Your task to perform on an android device: Show the shopping cart on walmart.com. Search for macbook air on walmart.com, select the first entry, add it to the cart, then select checkout. Image 0: 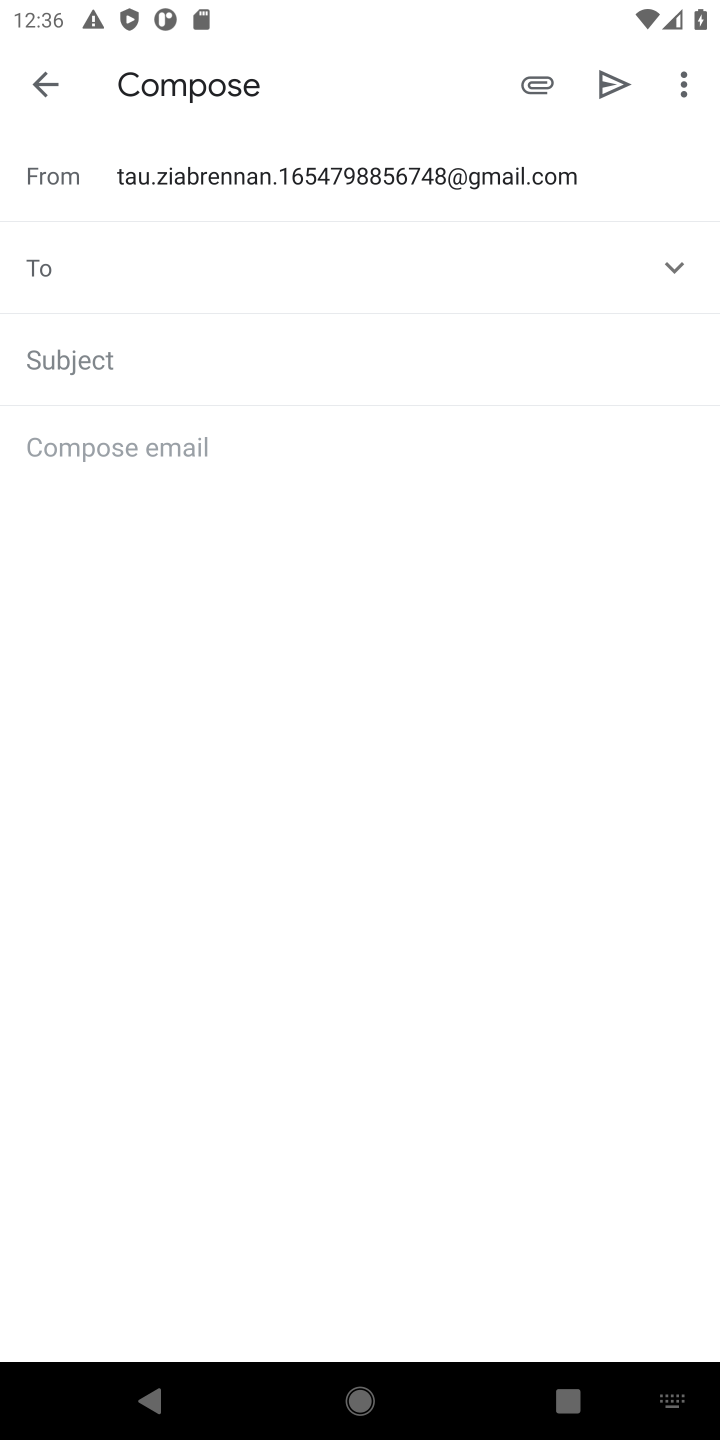
Step 0: press home button
Your task to perform on an android device: Show the shopping cart on walmart.com. Search for macbook air on walmart.com, select the first entry, add it to the cart, then select checkout. Image 1: 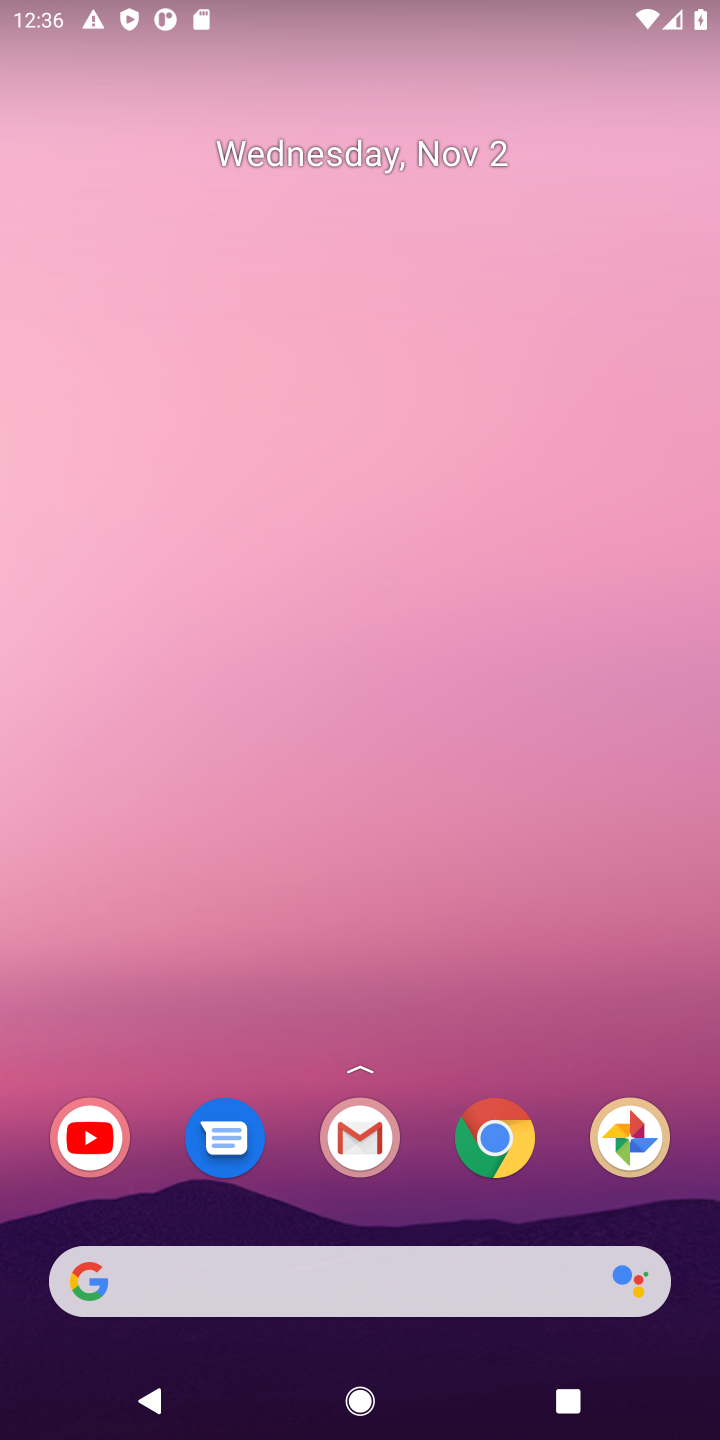
Step 1: click (147, 1271)
Your task to perform on an android device: Show the shopping cart on walmart.com. Search for macbook air on walmart.com, select the first entry, add it to the cart, then select checkout. Image 2: 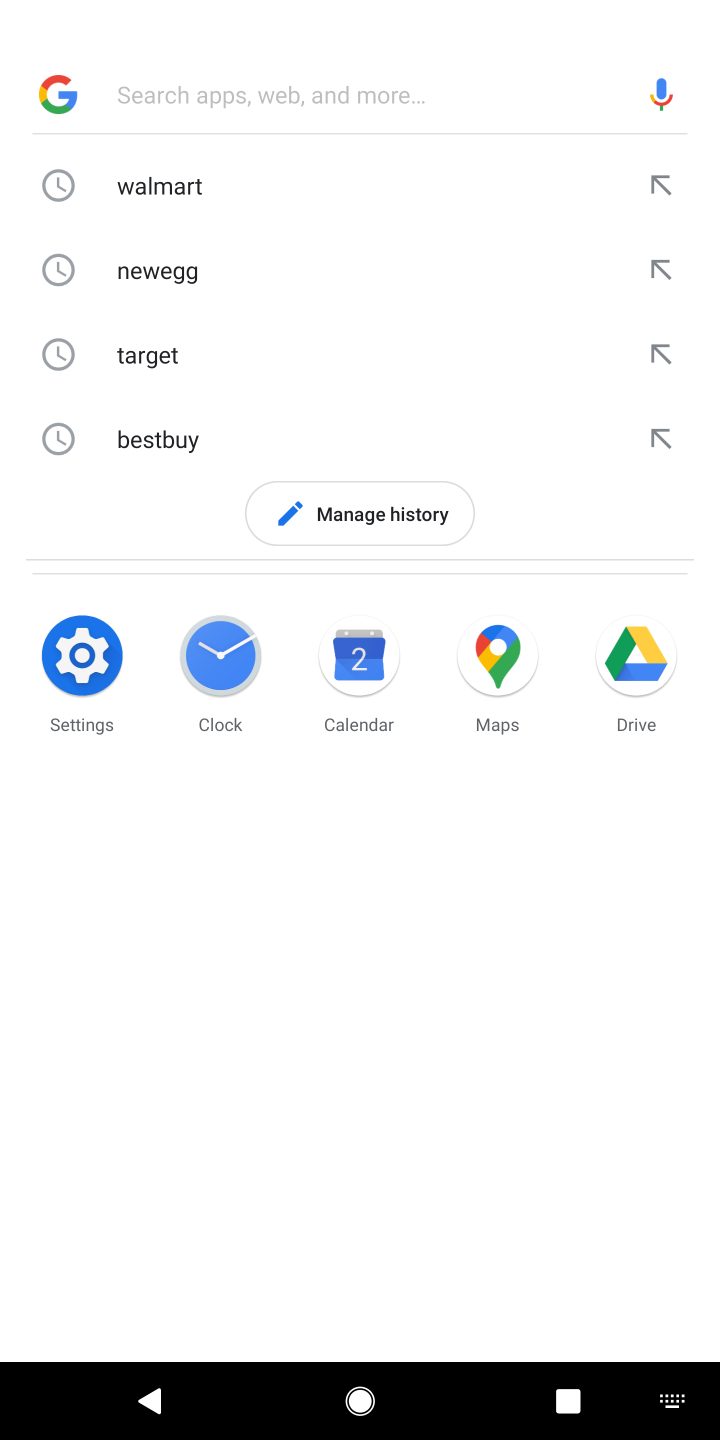
Step 2: click (191, 191)
Your task to perform on an android device: Show the shopping cart on walmart.com. Search for macbook air on walmart.com, select the first entry, add it to the cart, then select checkout. Image 3: 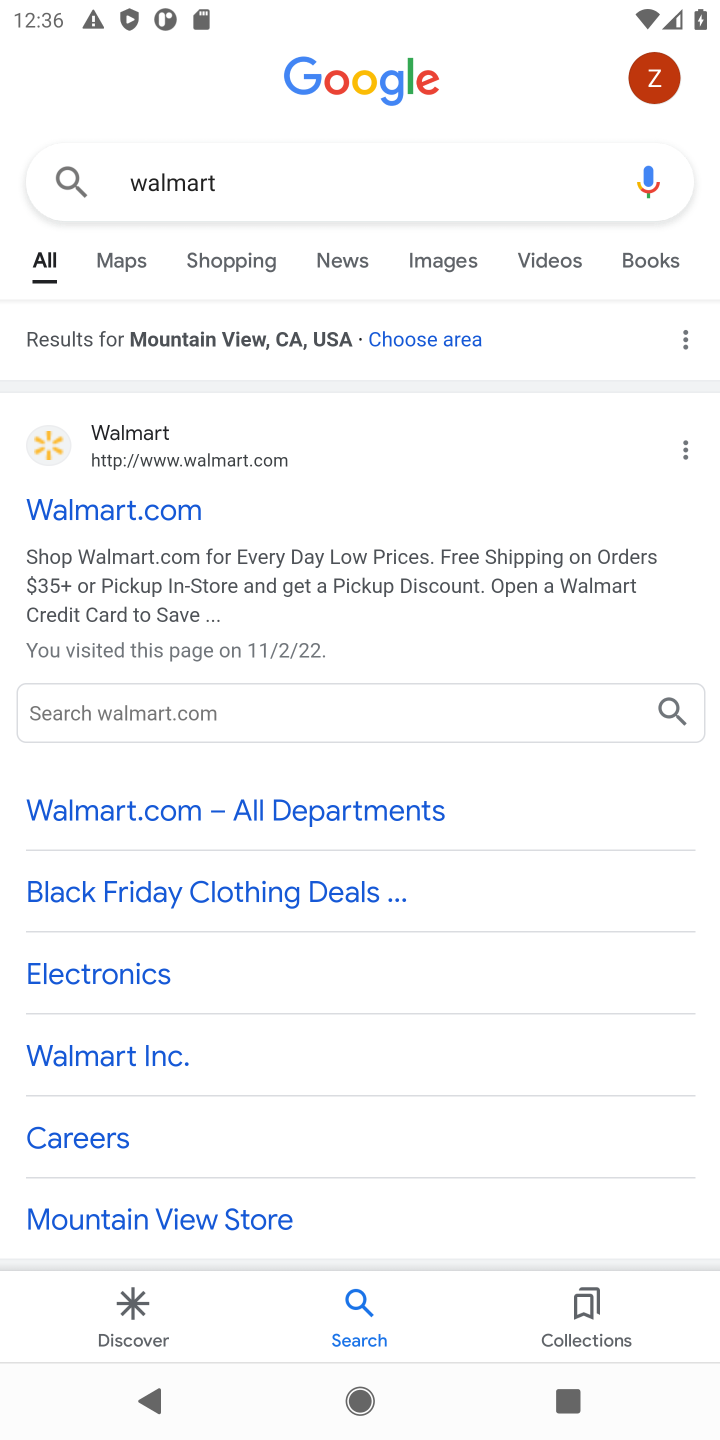
Step 3: click (131, 516)
Your task to perform on an android device: Show the shopping cart on walmart.com. Search for macbook air on walmart.com, select the first entry, add it to the cart, then select checkout. Image 4: 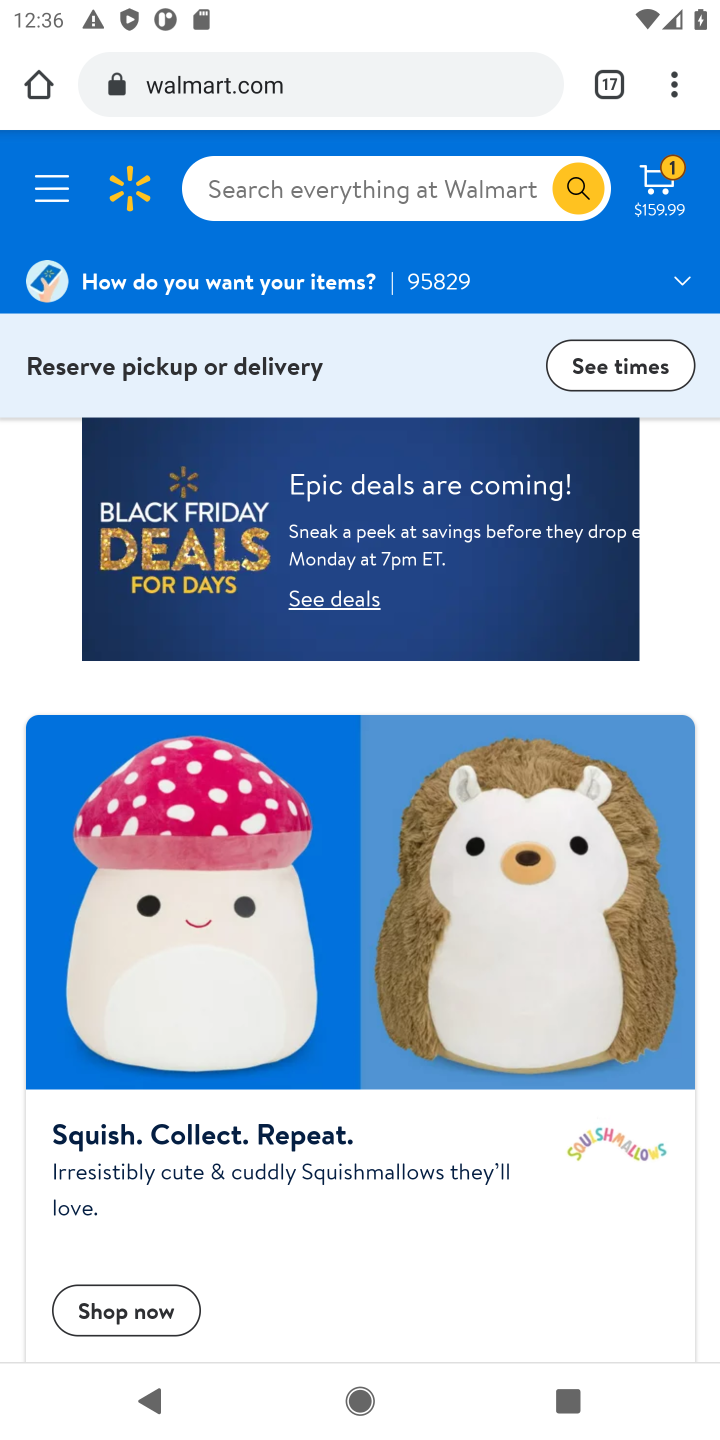
Step 4: click (670, 171)
Your task to perform on an android device: Show the shopping cart on walmart.com. Search for macbook air on walmart.com, select the first entry, add it to the cart, then select checkout. Image 5: 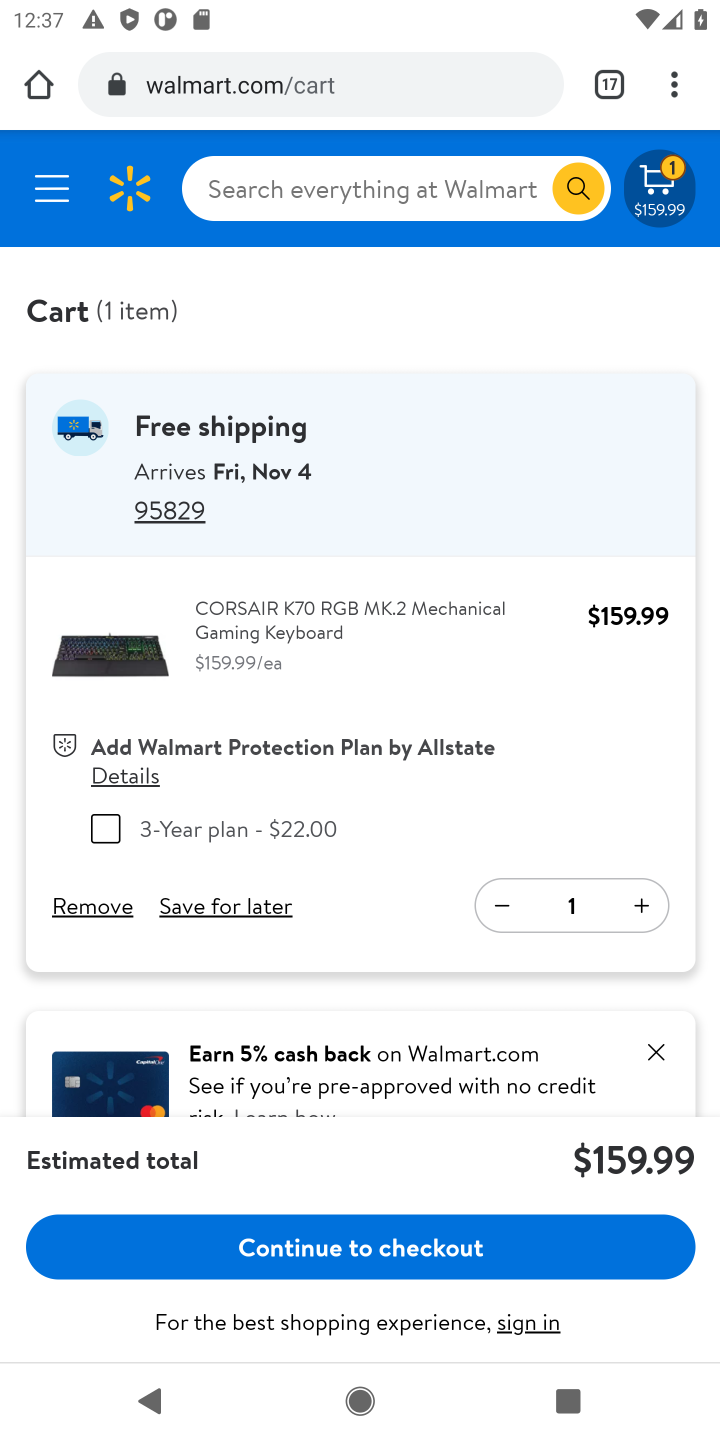
Step 5: click (250, 189)
Your task to perform on an android device: Show the shopping cart on walmart.com. Search for macbook air on walmart.com, select the first entry, add it to the cart, then select checkout. Image 6: 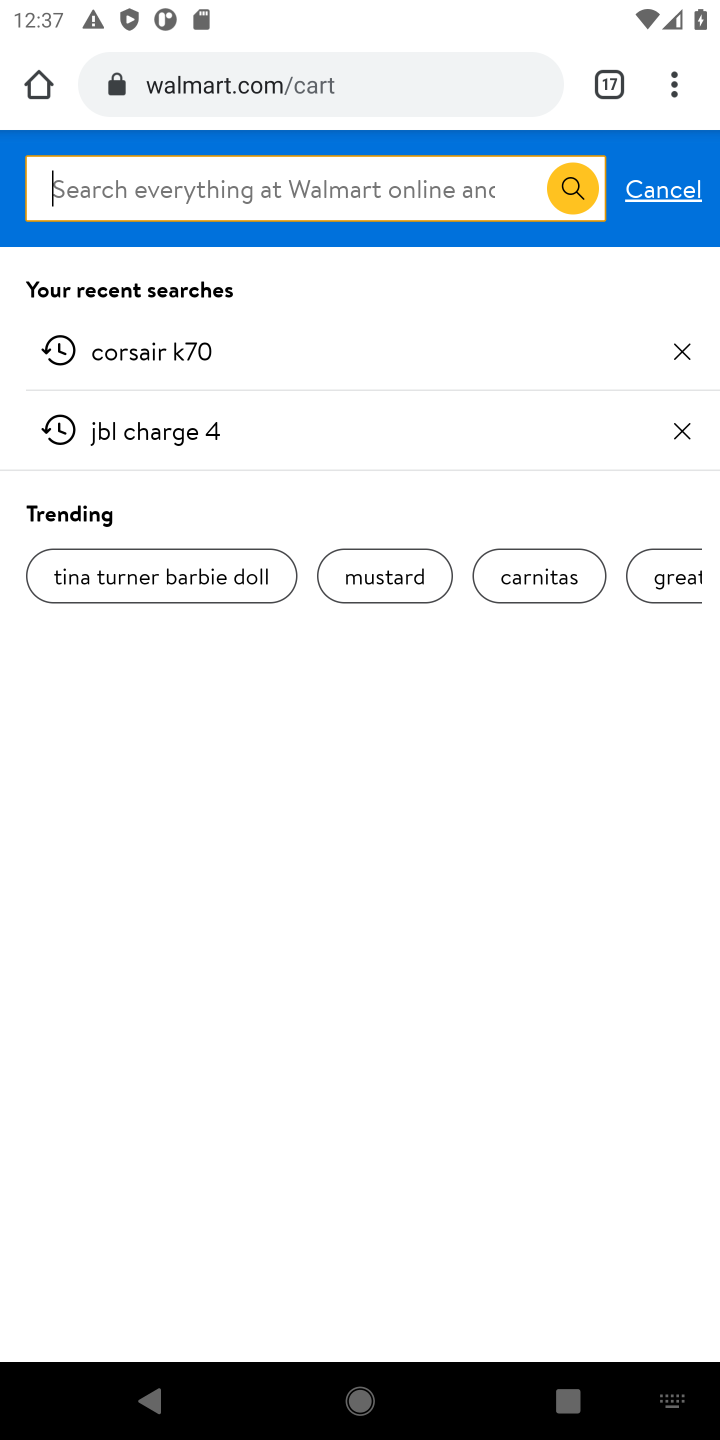
Step 6: type "macbook air"
Your task to perform on an android device: Show the shopping cart on walmart.com. Search for macbook air on walmart.com, select the first entry, add it to the cart, then select checkout. Image 7: 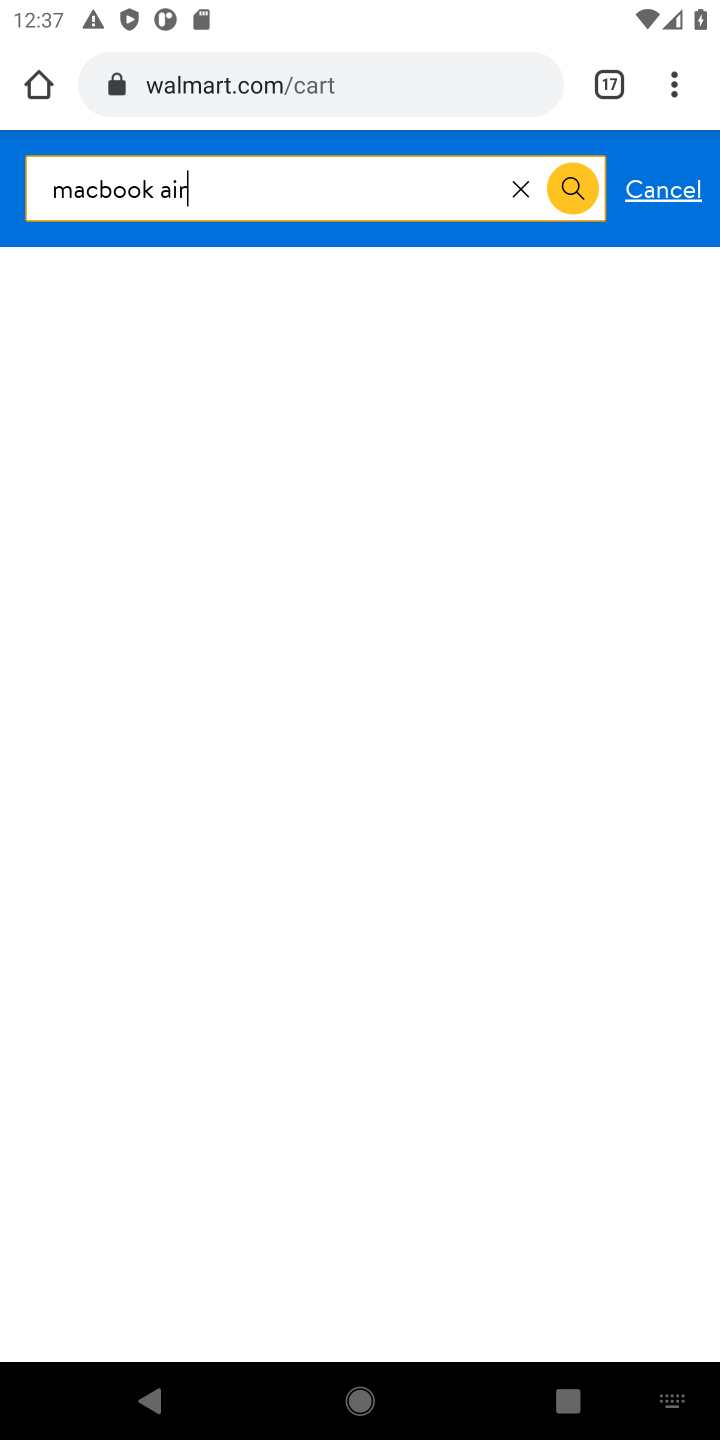
Step 7: press enter
Your task to perform on an android device: Show the shopping cart on walmart.com. Search for macbook air on walmart.com, select the first entry, add it to the cart, then select checkout. Image 8: 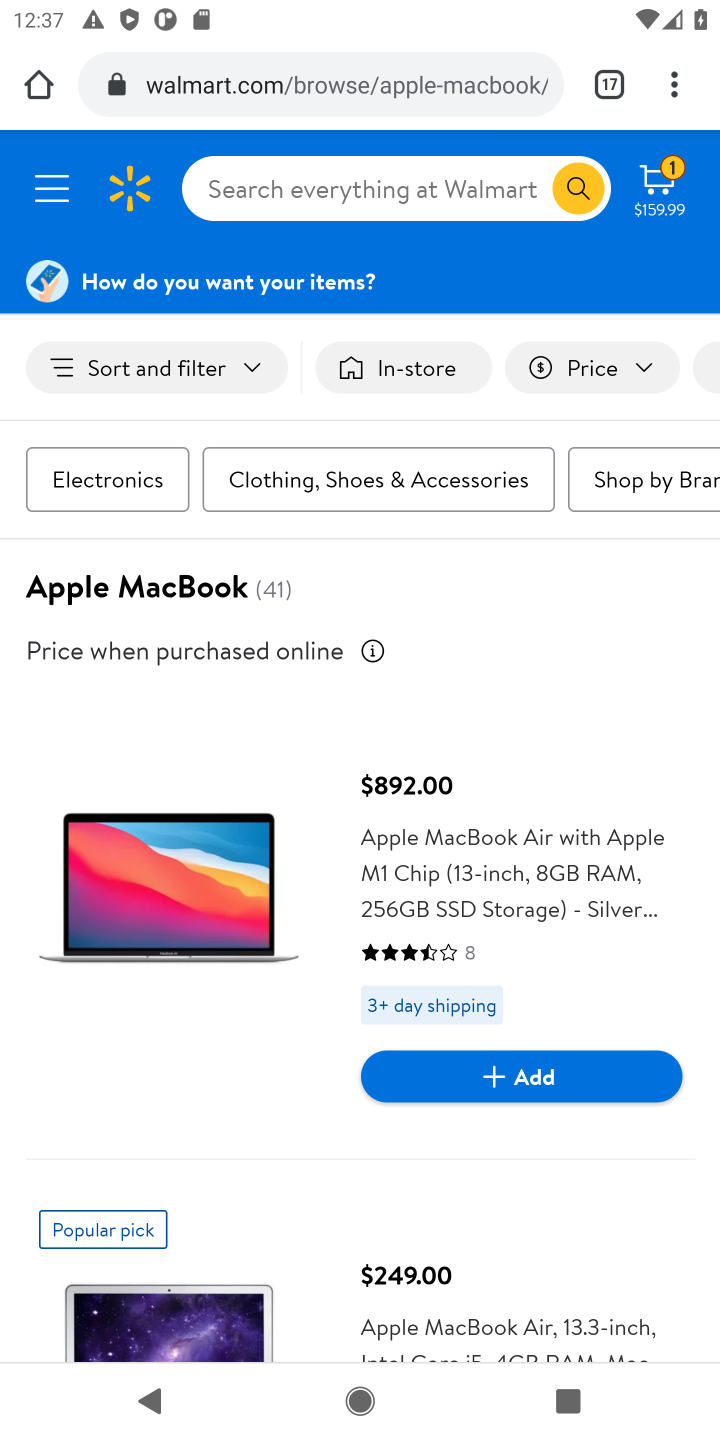
Step 8: drag from (555, 1203) to (590, 822)
Your task to perform on an android device: Show the shopping cart on walmart.com. Search for macbook air on walmart.com, select the first entry, add it to the cart, then select checkout. Image 9: 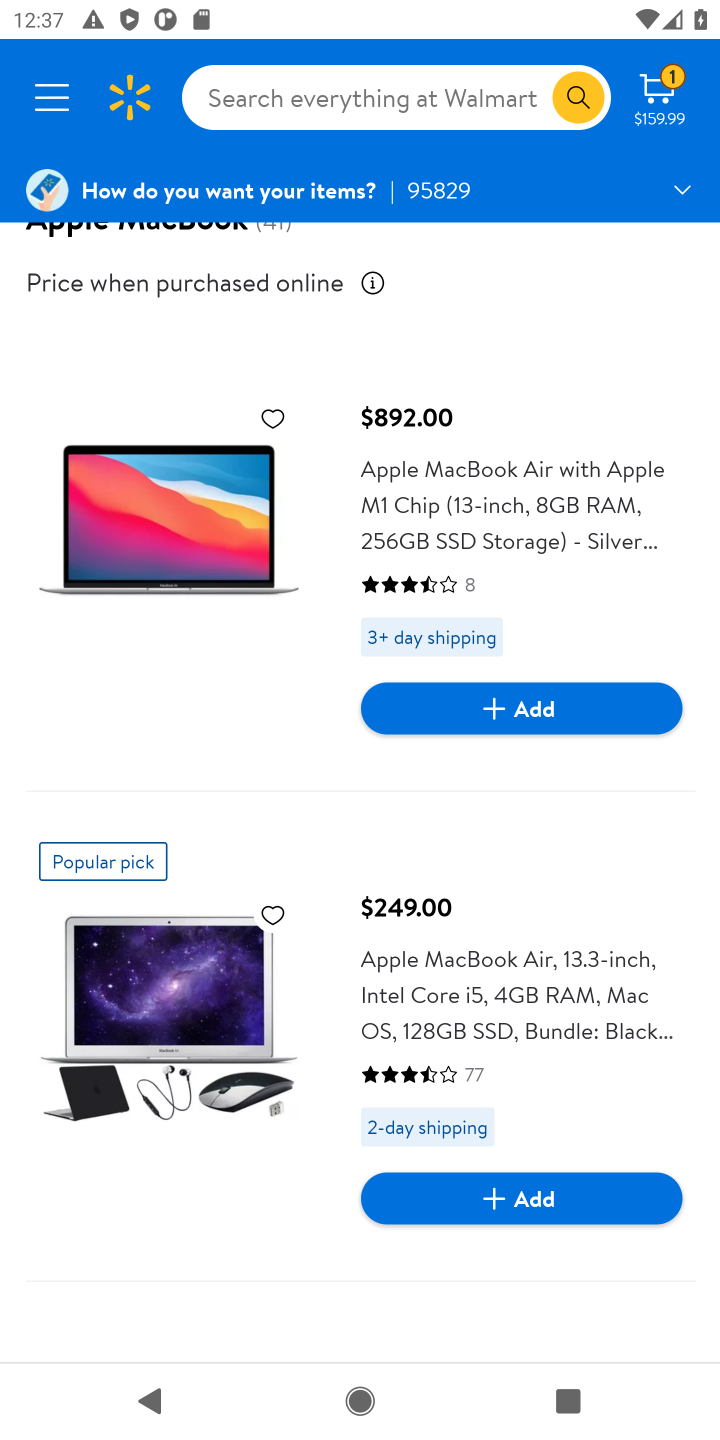
Step 9: click (533, 705)
Your task to perform on an android device: Show the shopping cart on walmart.com. Search for macbook air on walmart.com, select the first entry, add it to the cart, then select checkout. Image 10: 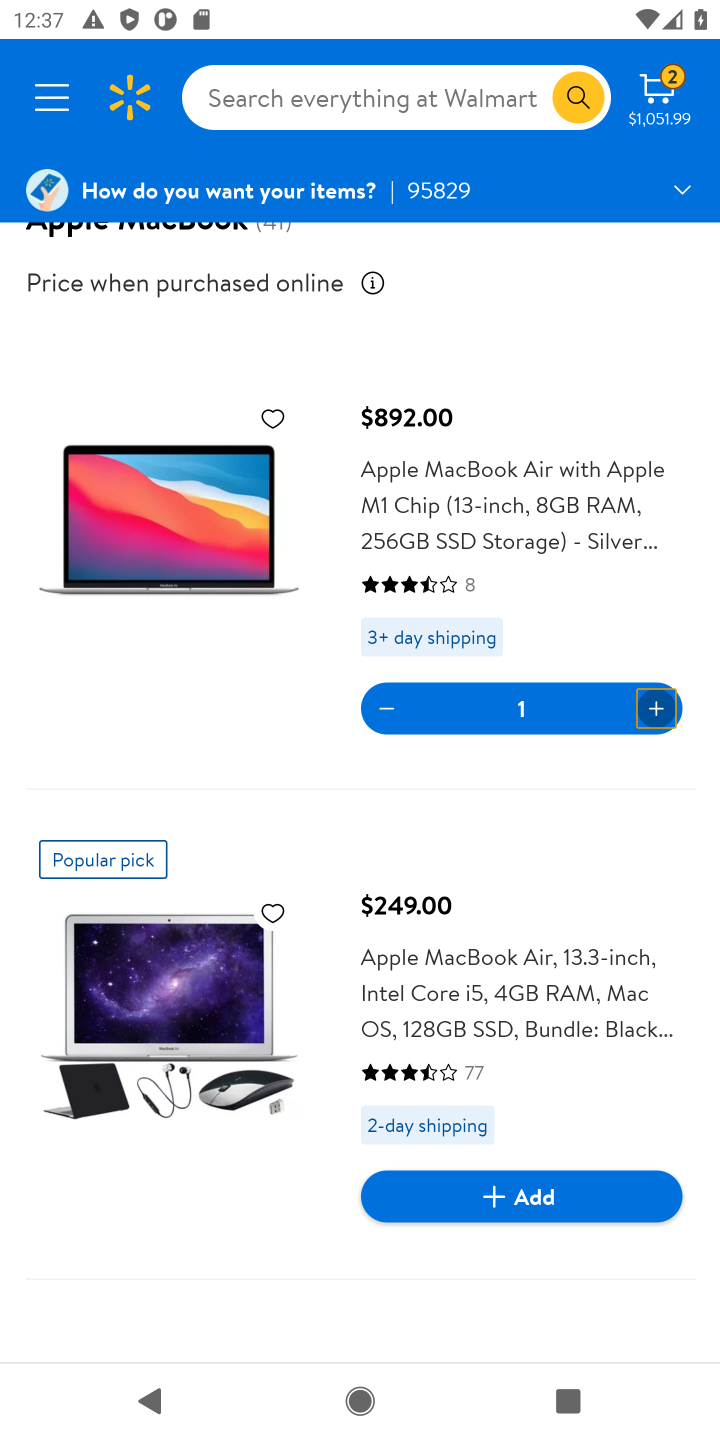
Step 10: click (657, 94)
Your task to perform on an android device: Show the shopping cart on walmart.com. Search for macbook air on walmart.com, select the first entry, add it to the cart, then select checkout. Image 11: 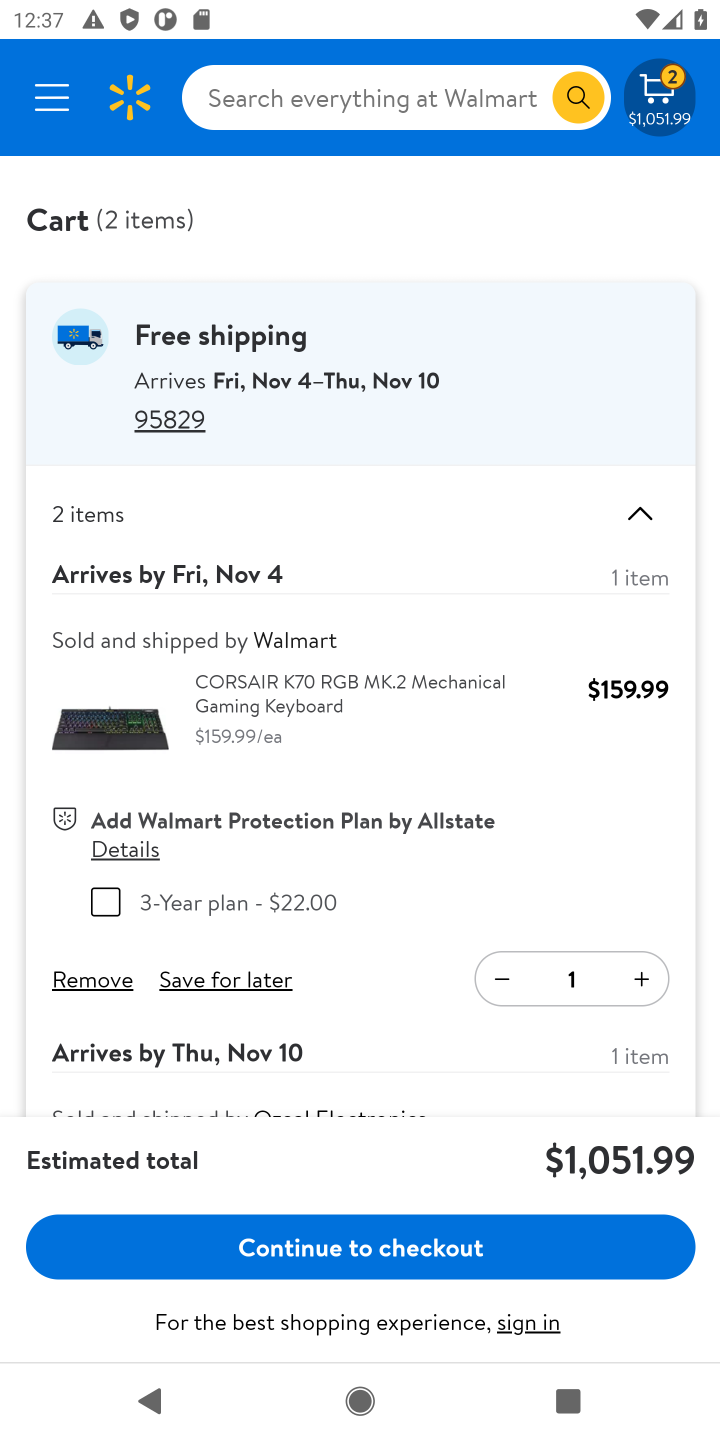
Step 11: click (296, 1257)
Your task to perform on an android device: Show the shopping cart on walmart.com. Search for macbook air on walmart.com, select the first entry, add it to the cart, then select checkout. Image 12: 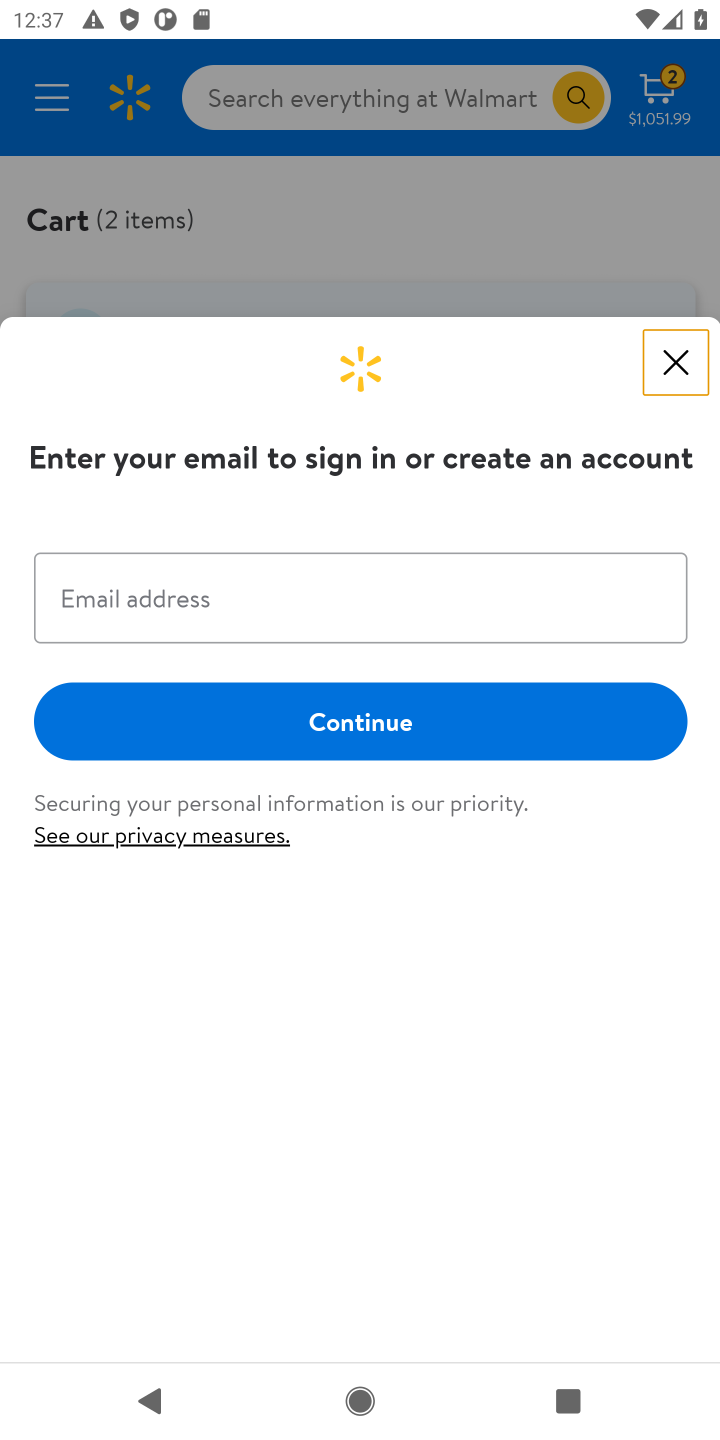
Step 12: task complete